Your task to perform on an android device: turn off translation in the chrome app Image 0: 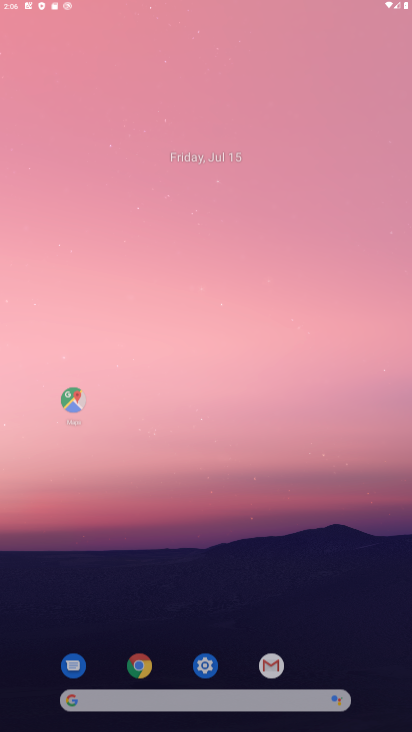
Step 0: press home button
Your task to perform on an android device: turn off translation in the chrome app Image 1: 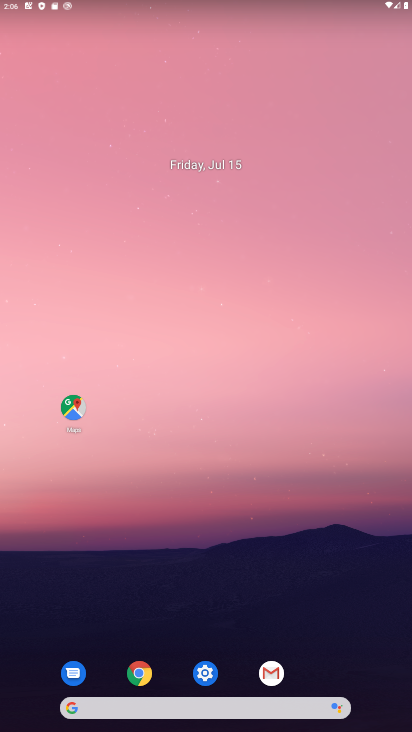
Step 1: click (268, 670)
Your task to perform on an android device: turn off translation in the chrome app Image 2: 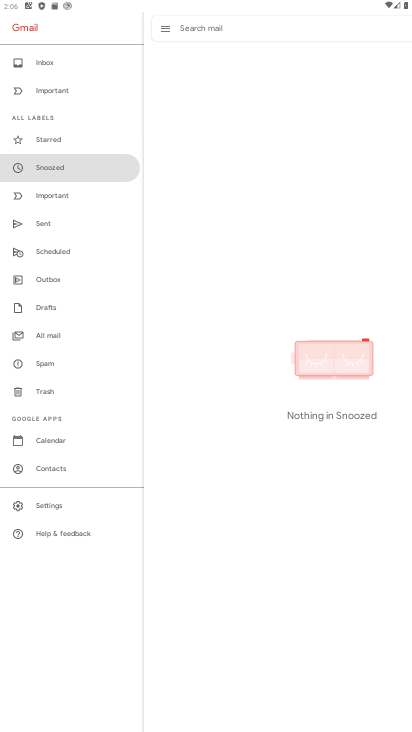
Step 2: press home button
Your task to perform on an android device: turn off translation in the chrome app Image 3: 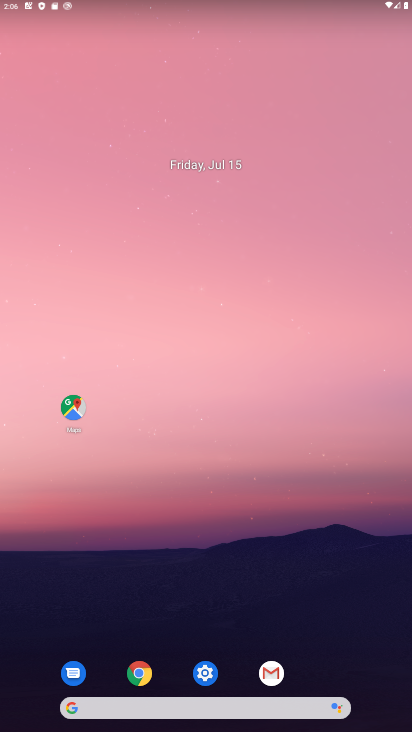
Step 3: click (207, 672)
Your task to perform on an android device: turn off translation in the chrome app Image 4: 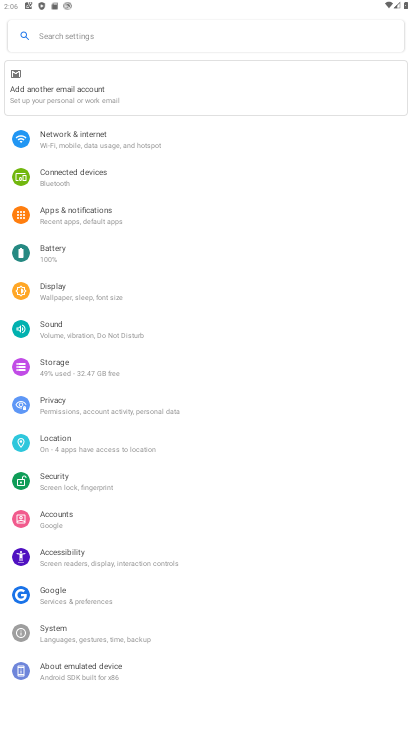
Step 4: press home button
Your task to perform on an android device: turn off translation in the chrome app Image 5: 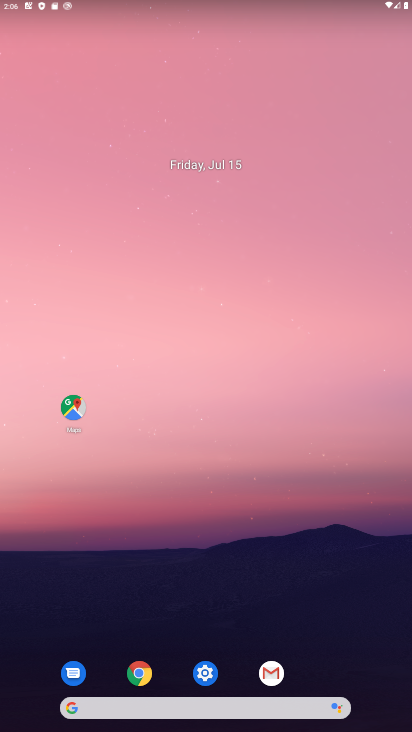
Step 5: click (135, 670)
Your task to perform on an android device: turn off translation in the chrome app Image 6: 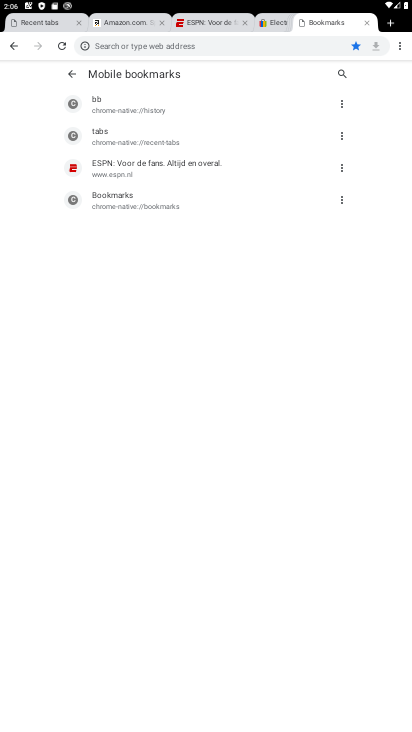
Step 6: click (400, 52)
Your task to perform on an android device: turn off translation in the chrome app Image 7: 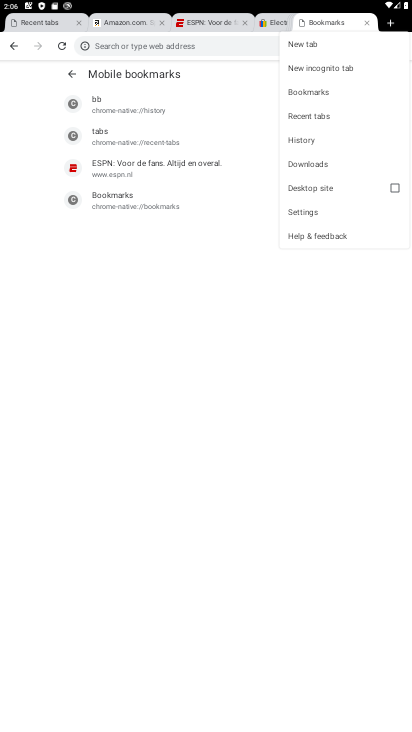
Step 7: click (307, 207)
Your task to perform on an android device: turn off translation in the chrome app Image 8: 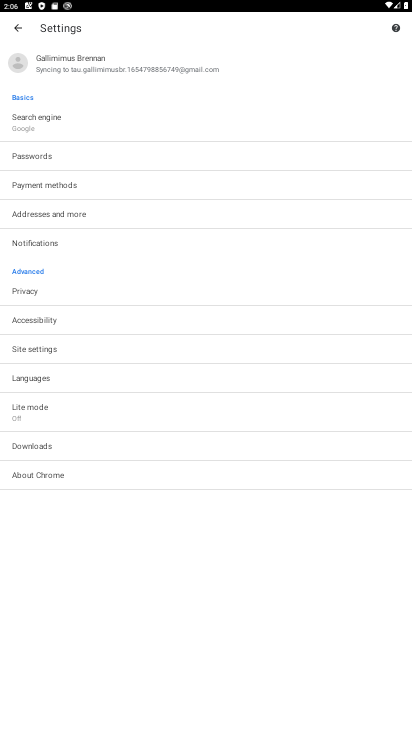
Step 8: click (43, 378)
Your task to perform on an android device: turn off translation in the chrome app Image 9: 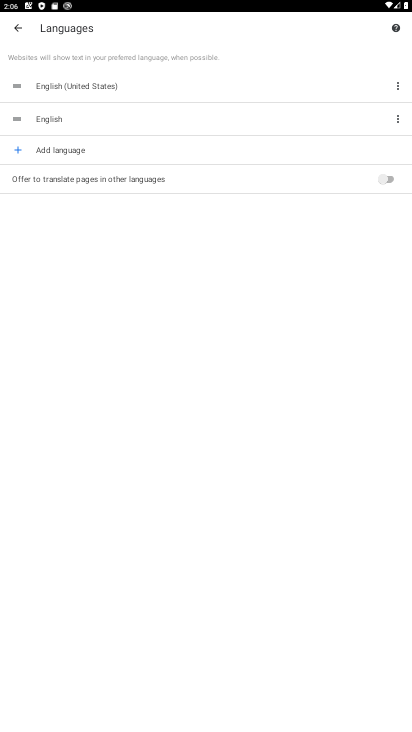
Step 9: click (379, 178)
Your task to perform on an android device: turn off translation in the chrome app Image 10: 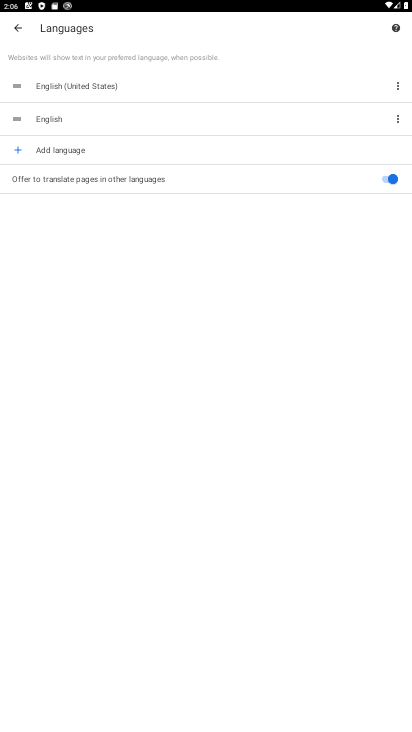
Step 10: click (379, 178)
Your task to perform on an android device: turn off translation in the chrome app Image 11: 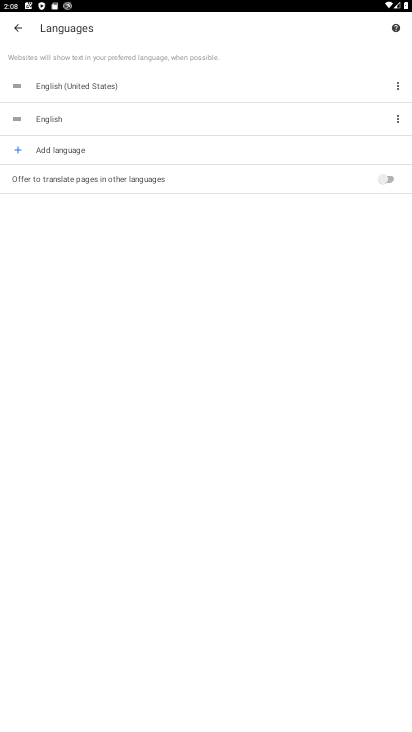
Step 11: task complete